Your task to perform on an android device: Open wifi settings Image 0: 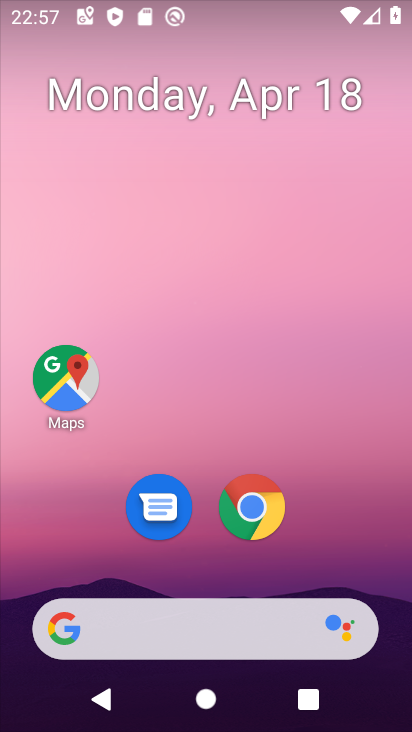
Step 0: drag from (376, 420) to (313, 83)
Your task to perform on an android device: Open wifi settings Image 1: 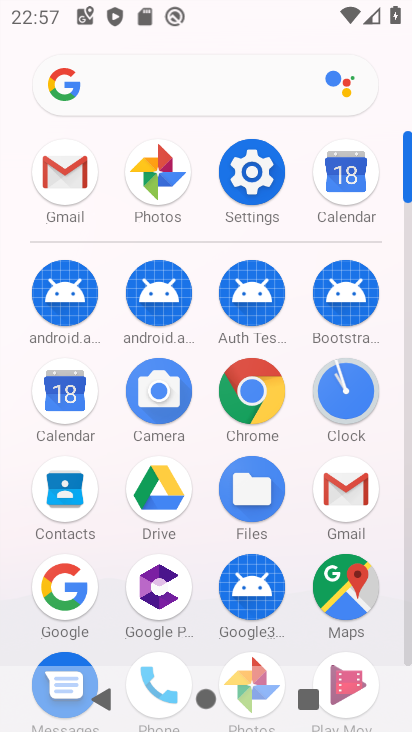
Step 1: click (244, 180)
Your task to perform on an android device: Open wifi settings Image 2: 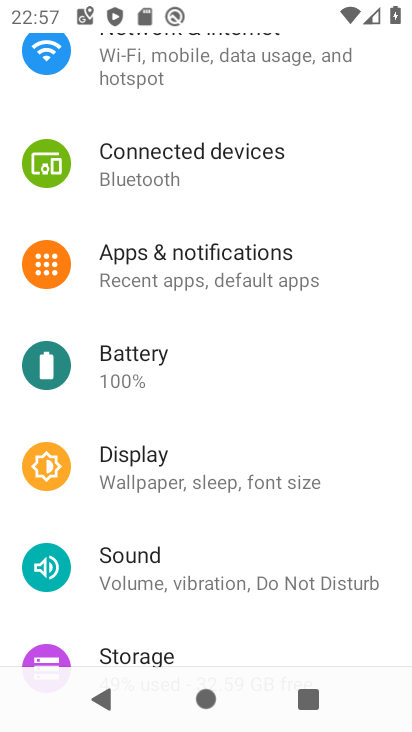
Step 2: drag from (231, 204) to (225, 457)
Your task to perform on an android device: Open wifi settings Image 3: 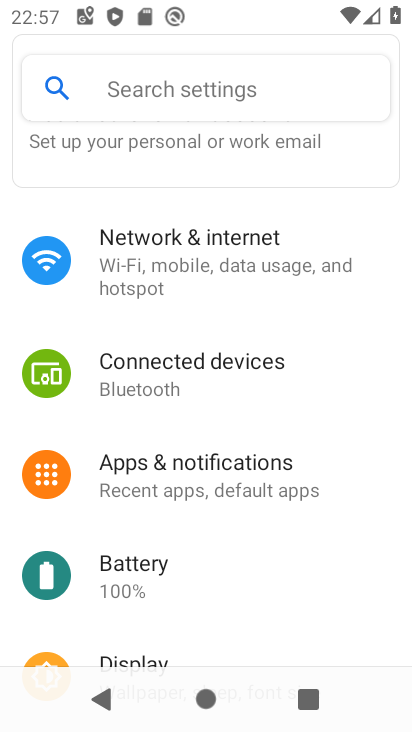
Step 3: click (233, 259)
Your task to perform on an android device: Open wifi settings Image 4: 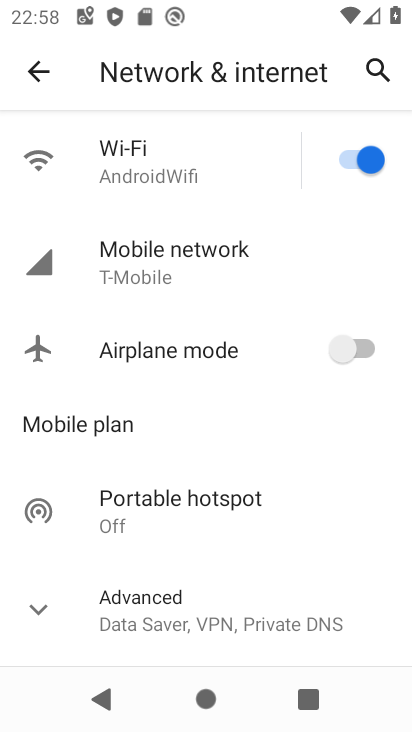
Step 4: click (211, 164)
Your task to perform on an android device: Open wifi settings Image 5: 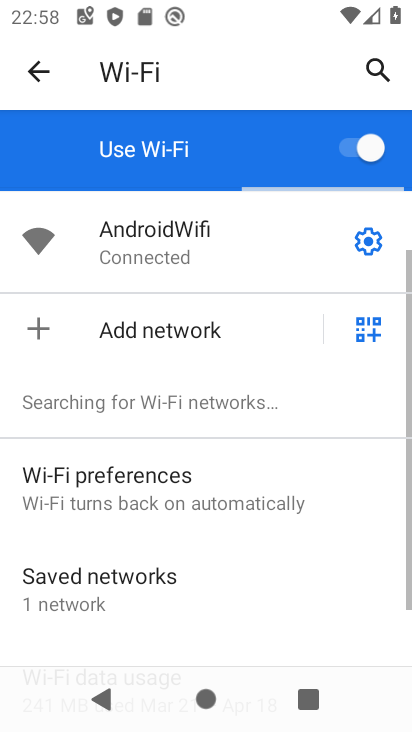
Step 5: task complete